Your task to perform on an android device: clear history in the chrome app Image 0: 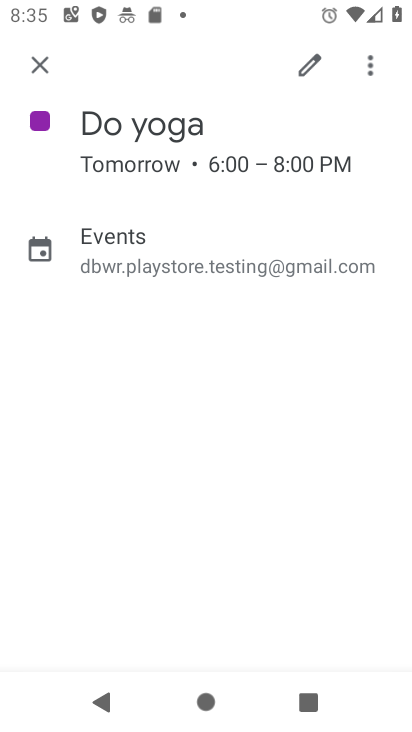
Step 0: press home button
Your task to perform on an android device: clear history in the chrome app Image 1: 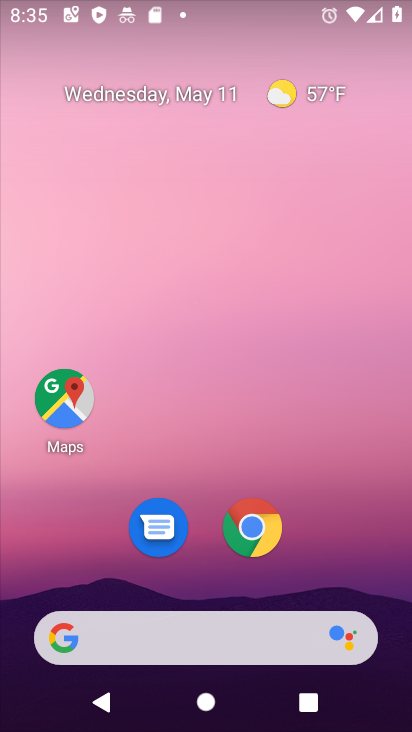
Step 1: click (262, 534)
Your task to perform on an android device: clear history in the chrome app Image 2: 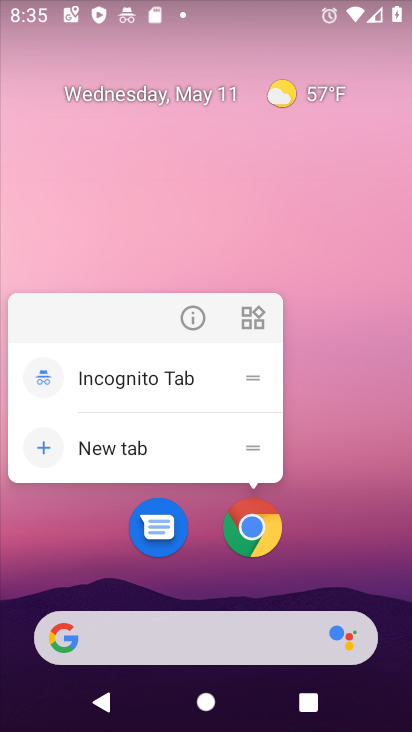
Step 2: click (248, 527)
Your task to perform on an android device: clear history in the chrome app Image 3: 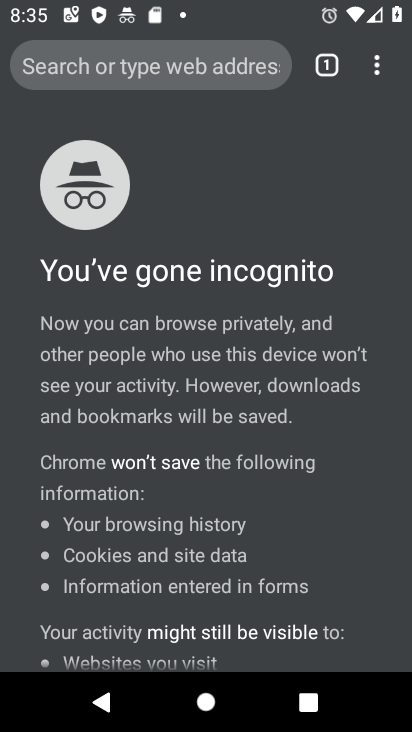
Step 3: click (379, 69)
Your task to perform on an android device: clear history in the chrome app Image 4: 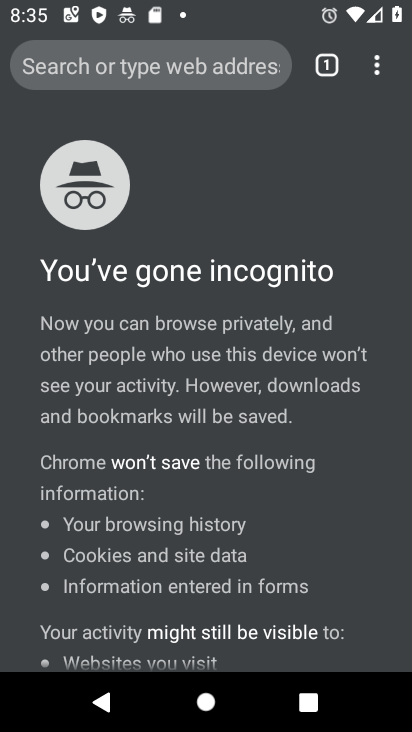
Step 4: click (384, 69)
Your task to perform on an android device: clear history in the chrome app Image 5: 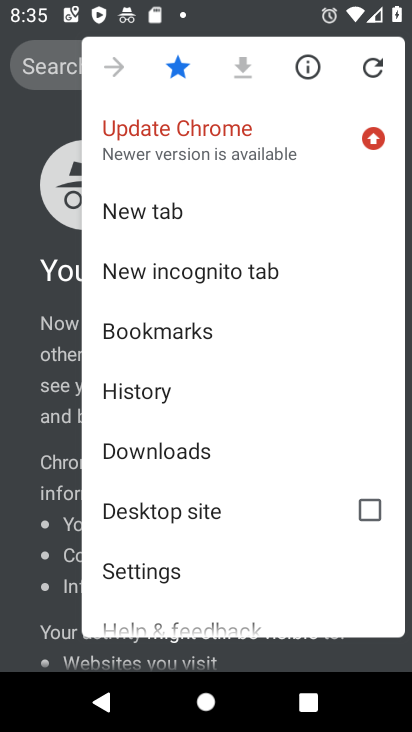
Step 5: click (157, 582)
Your task to perform on an android device: clear history in the chrome app Image 6: 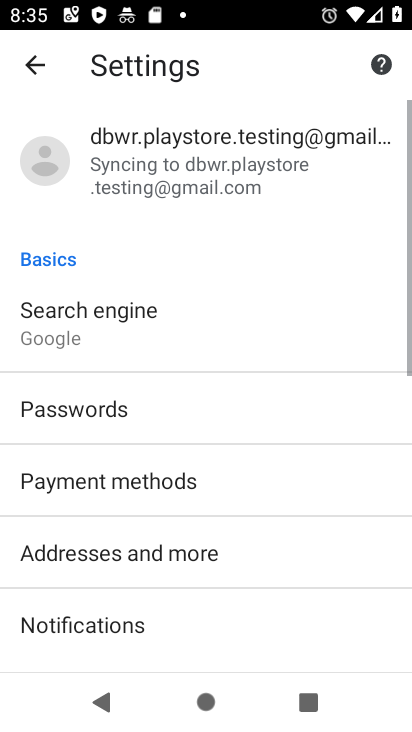
Step 6: drag from (155, 582) to (163, 115)
Your task to perform on an android device: clear history in the chrome app Image 7: 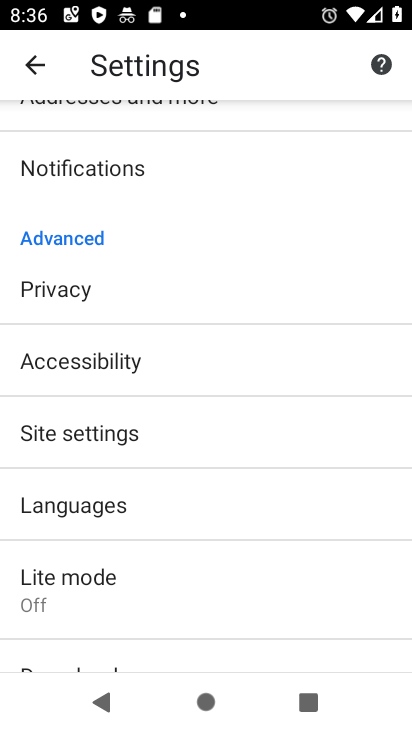
Step 7: click (76, 290)
Your task to perform on an android device: clear history in the chrome app Image 8: 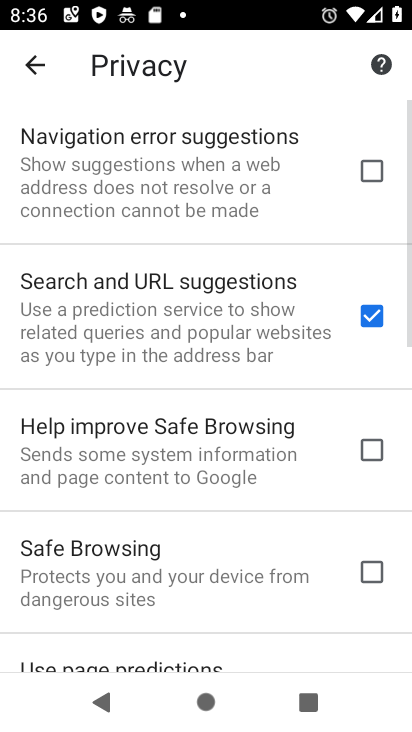
Step 8: drag from (178, 577) to (185, 29)
Your task to perform on an android device: clear history in the chrome app Image 9: 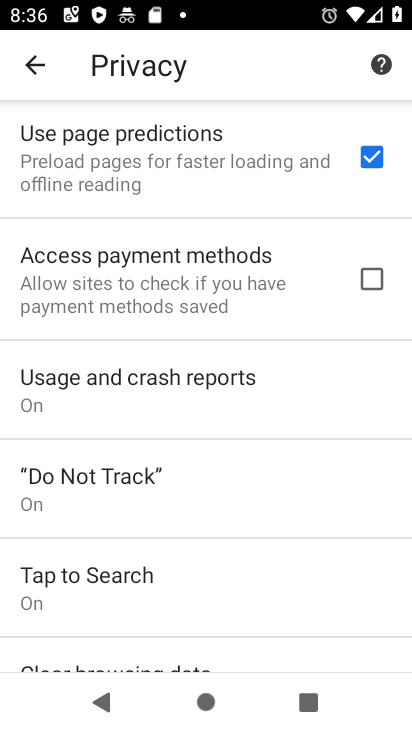
Step 9: drag from (154, 463) to (159, 62)
Your task to perform on an android device: clear history in the chrome app Image 10: 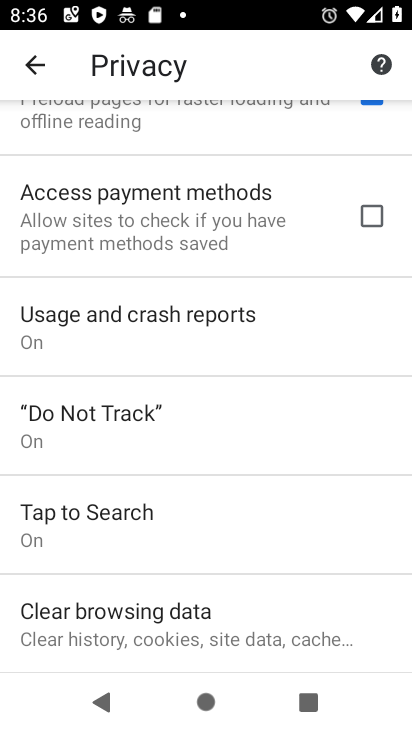
Step 10: click (143, 620)
Your task to perform on an android device: clear history in the chrome app Image 11: 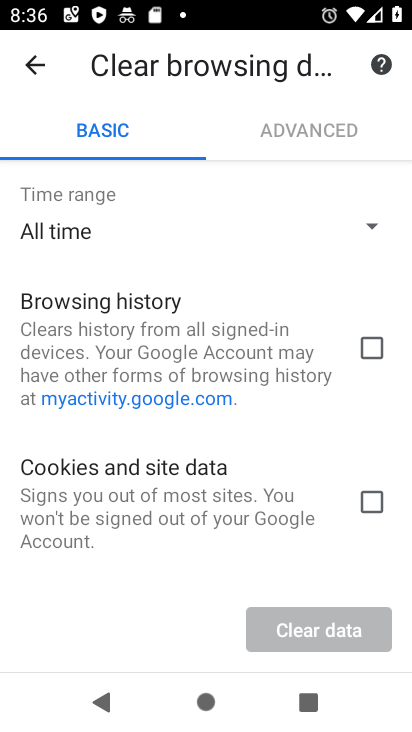
Step 11: click (372, 360)
Your task to perform on an android device: clear history in the chrome app Image 12: 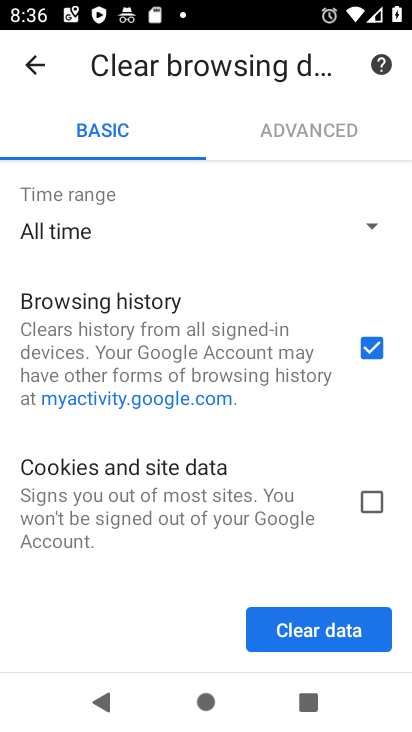
Step 12: drag from (75, 513) to (101, 215)
Your task to perform on an android device: clear history in the chrome app Image 13: 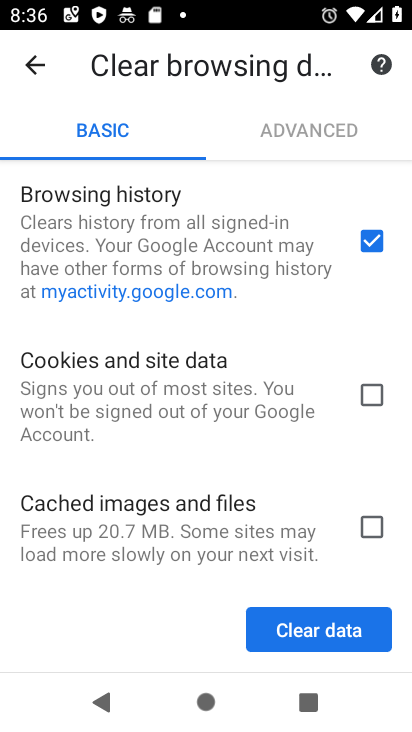
Step 13: click (311, 636)
Your task to perform on an android device: clear history in the chrome app Image 14: 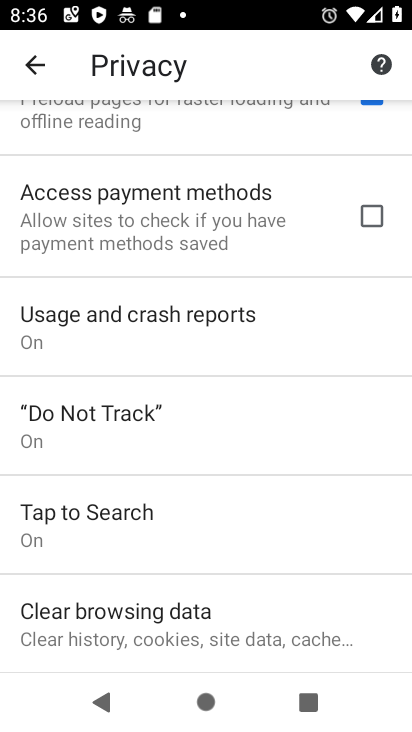
Step 14: task complete